Your task to perform on an android device: Open Amazon Image 0: 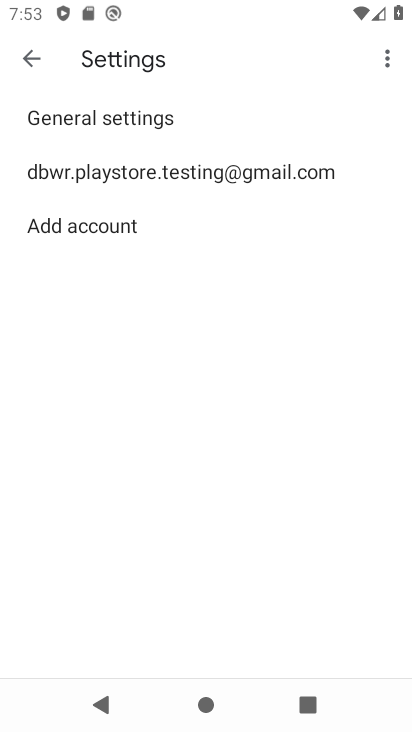
Step 0: click (30, 55)
Your task to perform on an android device: Open Amazon Image 1: 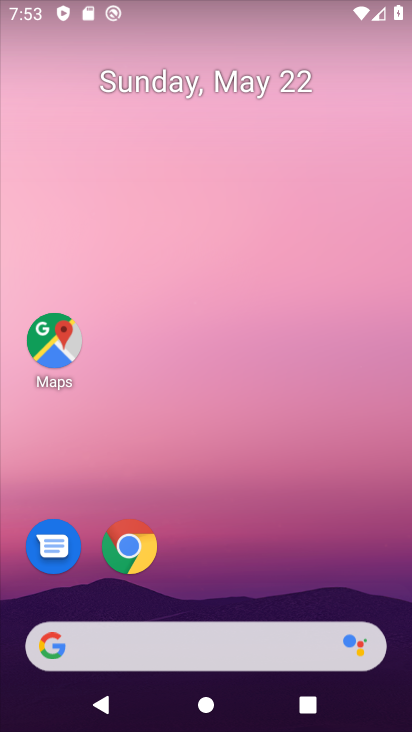
Step 1: click (161, 44)
Your task to perform on an android device: Open Amazon Image 2: 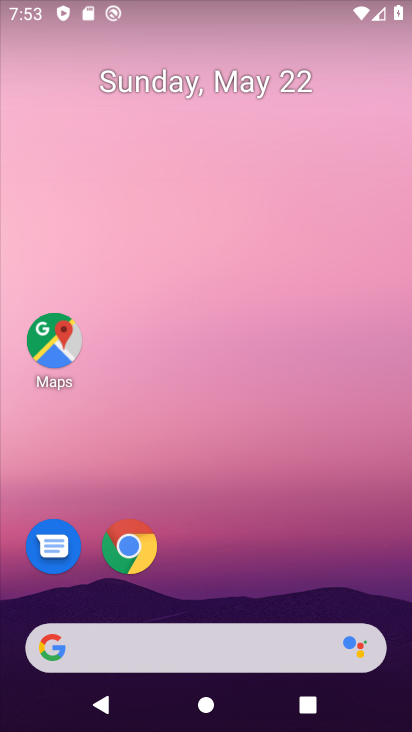
Step 2: drag from (230, 520) to (200, 45)
Your task to perform on an android device: Open Amazon Image 3: 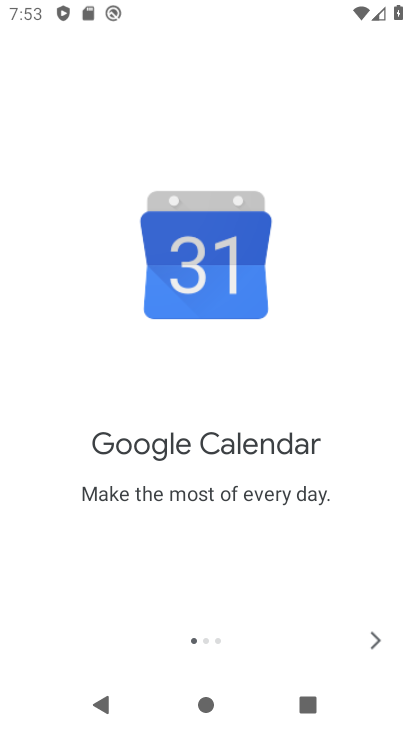
Step 3: drag from (258, 458) to (201, 33)
Your task to perform on an android device: Open Amazon Image 4: 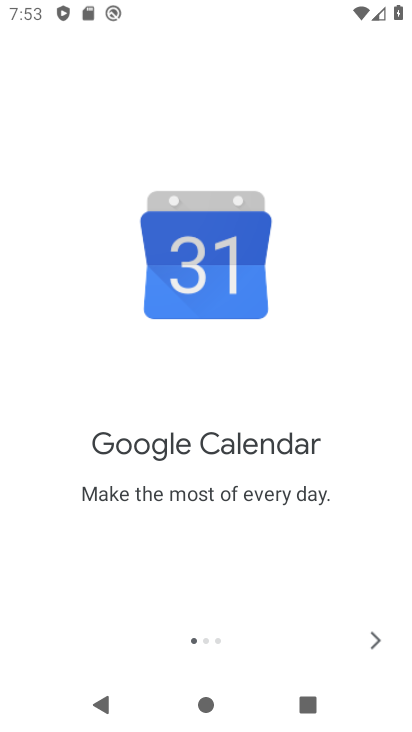
Step 4: click (375, 642)
Your task to perform on an android device: Open Amazon Image 5: 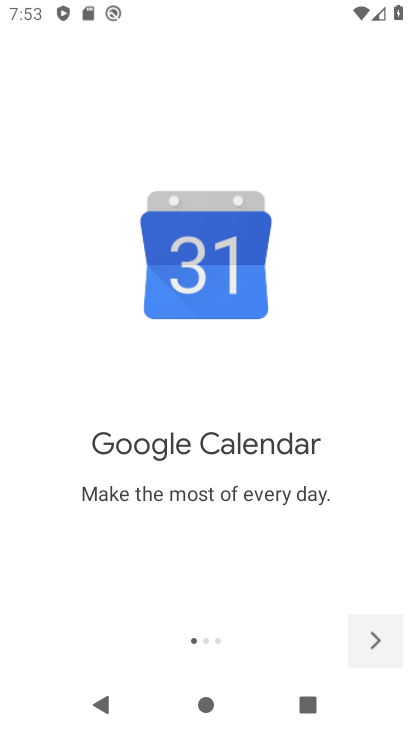
Step 5: click (376, 617)
Your task to perform on an android device: Open Amazon Image 6: 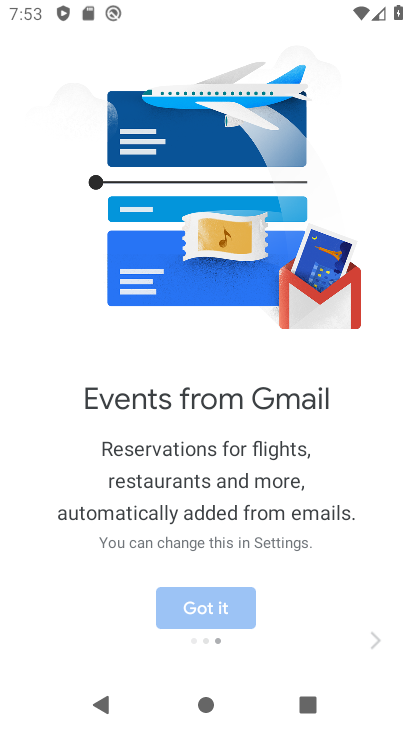
Step 6: press back button
Your task to perform on an android device: Open Amazon Image 7: 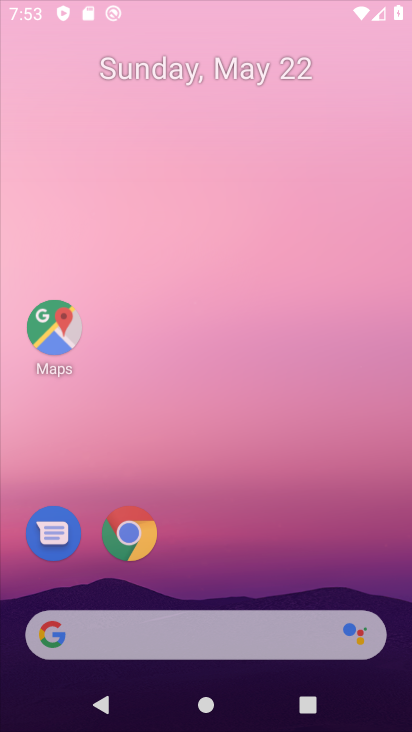
Step 7: click (199, 599)
Your task to perform on an android device: Open Amazon Image 8: 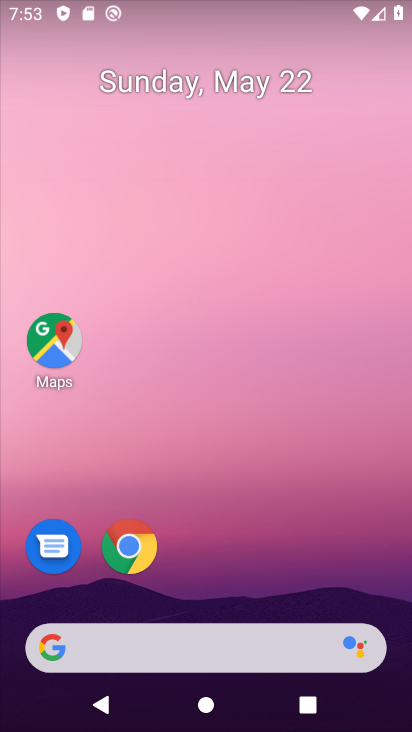
Step 8: drag from (304, 656) to (250, 14)
Your task to perform on an android device: Open Amazon Image 9: 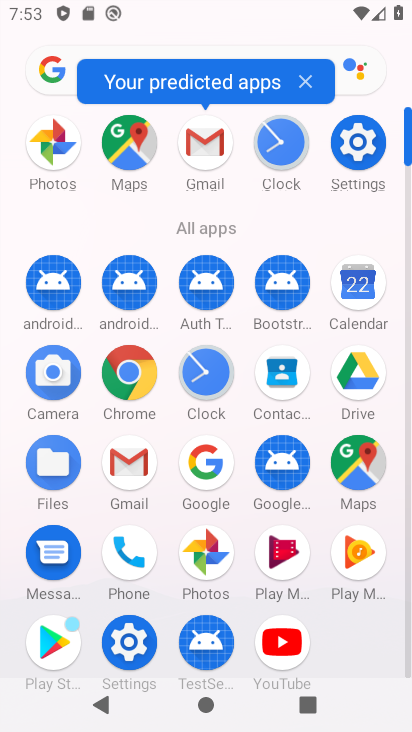
Step 9: click (120, 378)
Your task to perform on an android device: Open Amazon Image 10: 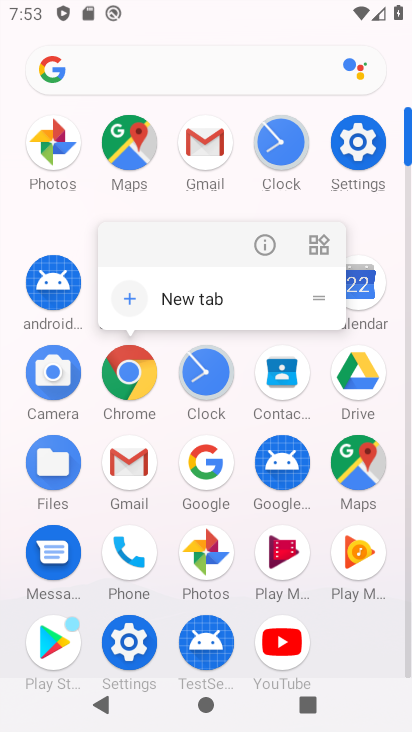
Step 10: click (121, 376)
Your task to perform on an android device: Open Amazon Image 11: 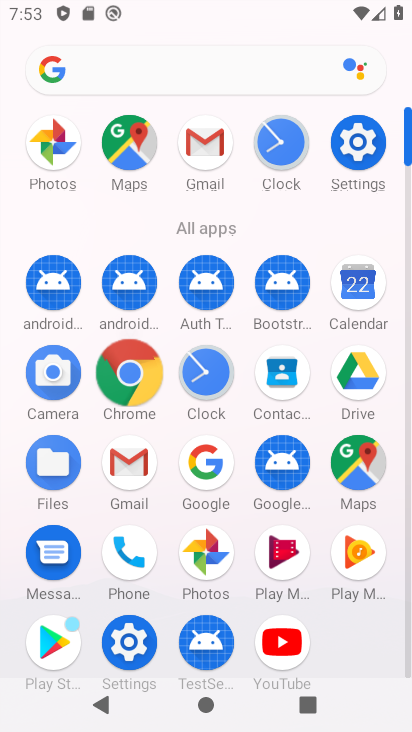
Step 11: click (127, 374)
Your task to perform on an android device: Open Amazon Image 12: 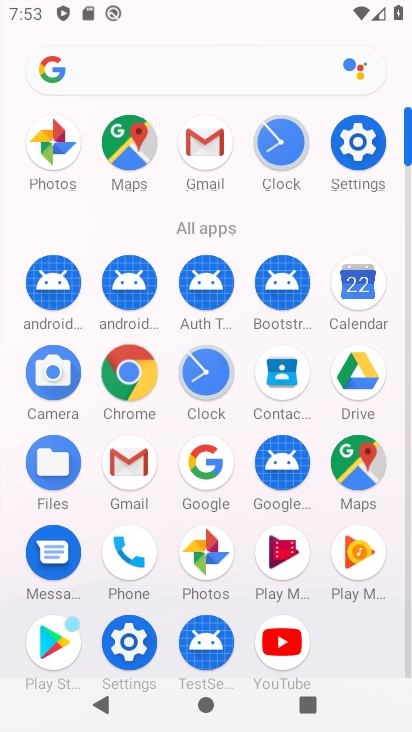
Step 12: click (127, 374)
Your task to perform on an android device: Open Amazon Image 13: 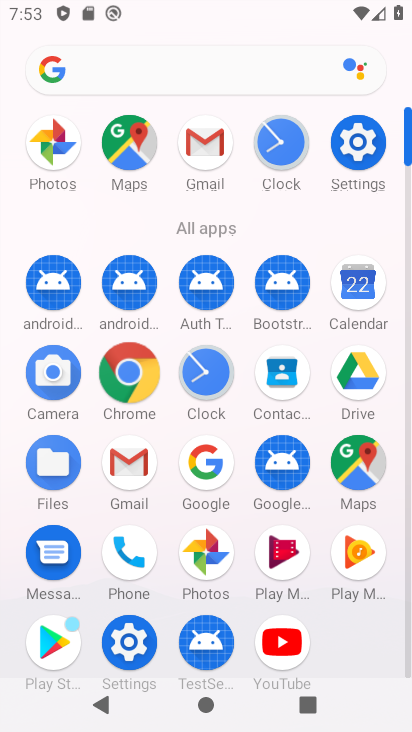
Step 13: click (133, 372)
Your task to perform on an android device: Open Amazon Image 14: 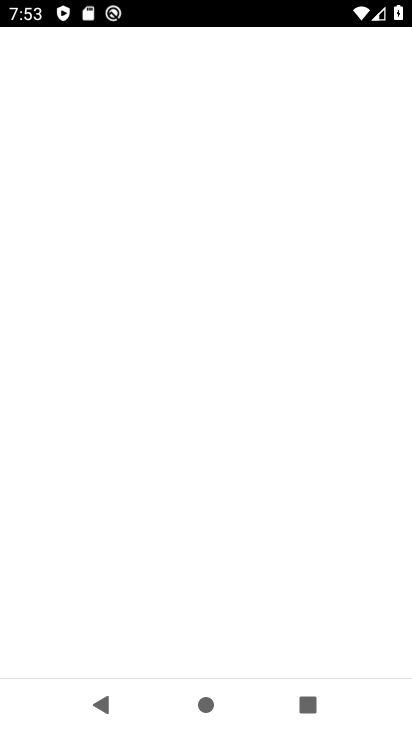
Step 14: click (125, 350)
Your task to perform on an android device: Open Amazon Image 15: 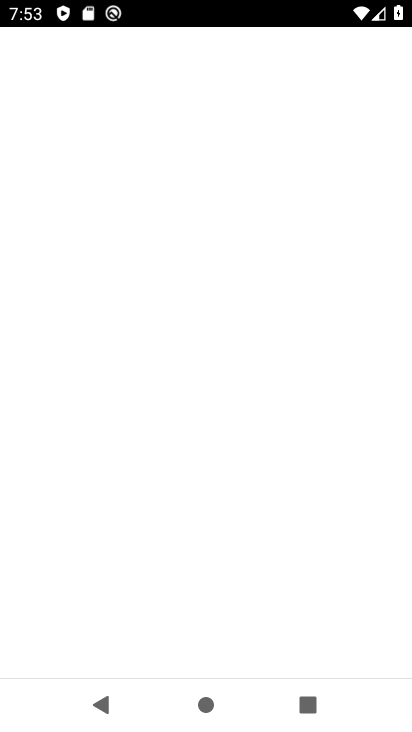
Step 15: click (127, 357)
Your task to perform on an android device: Open Amazon Image 16: 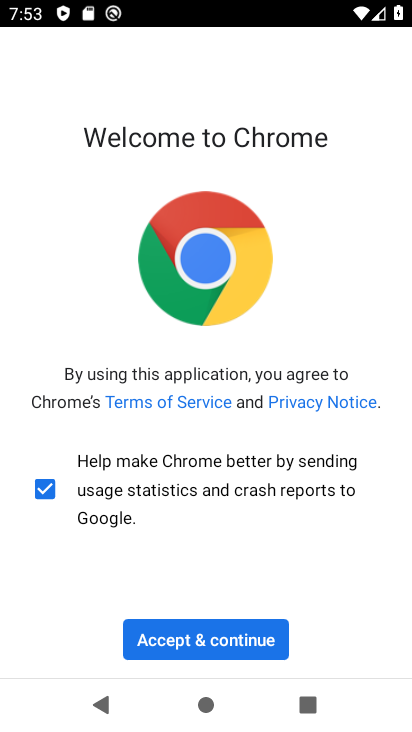
Step 16: click (207, 639)
Your task to perform on an android device: Open Amazon Image 17: 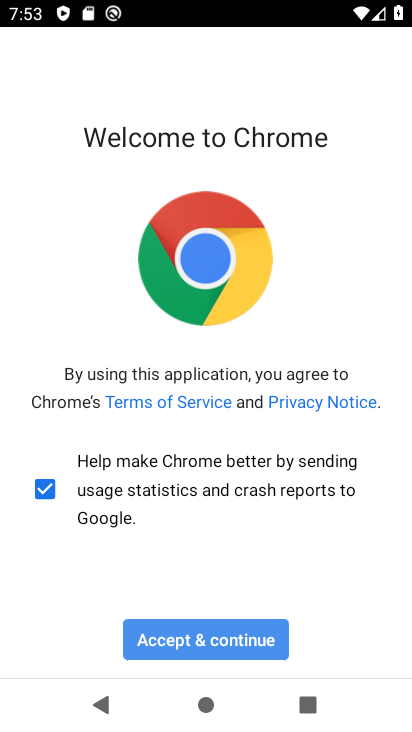
Step 17: click (207, 638)
Your task to perform on an android device: Open Amazon Image 18: 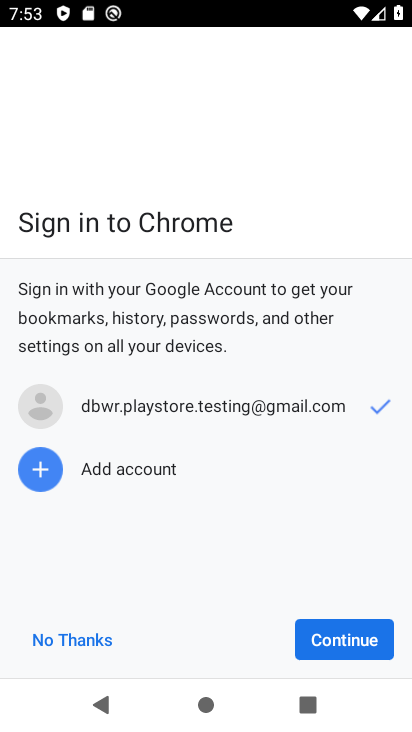
Step 18: click (212, 635)
Your task to perform on an android device: Open Amazon Image 19: 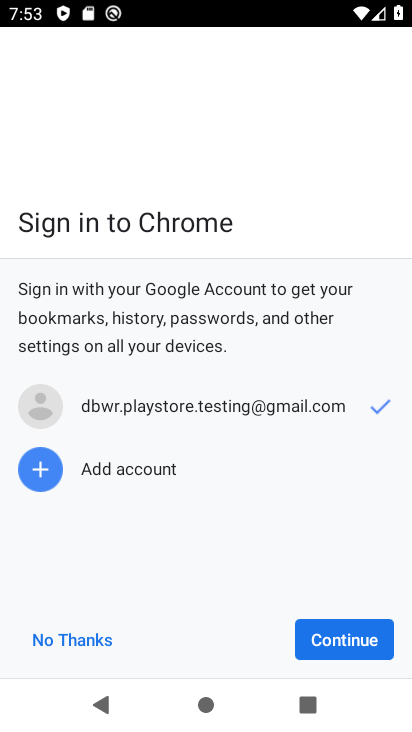
Step 19: click (213, 635)
Your task to perform on an android device: Open Amazon Image 20: 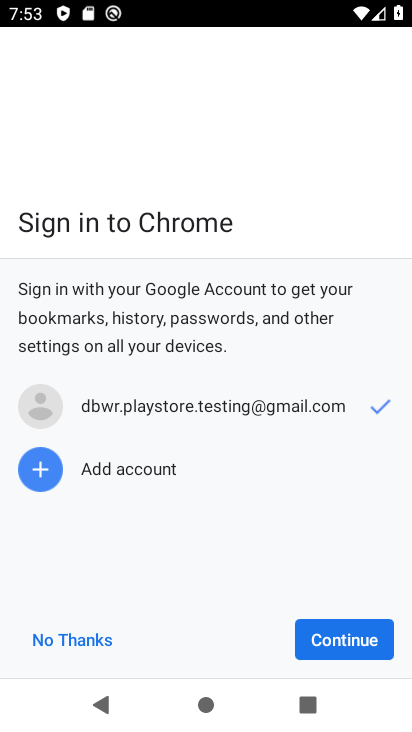
Step 20: click (327, 638)
Your task to perform on an android device: Open Amazon Image 21: 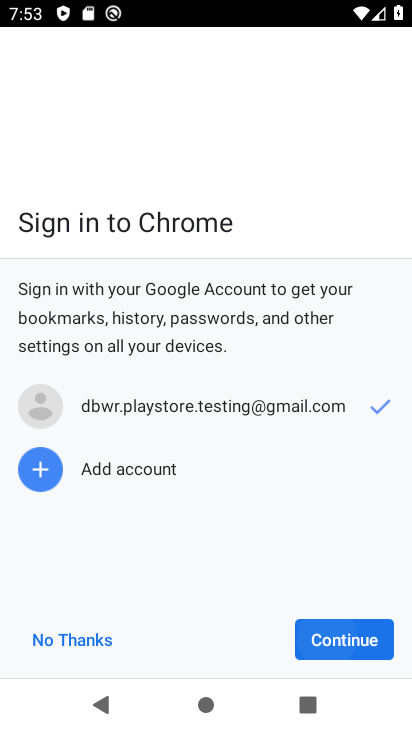
Step 21: click (330, 640)
Your task to perform on an android device: Open Amazon Image 22: 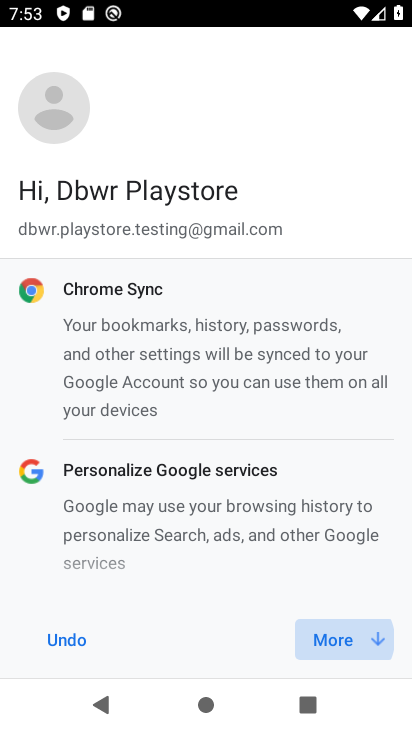
Step 22: click (312, 597)
Your task to perform on an android device: Open Amazon Image 23: 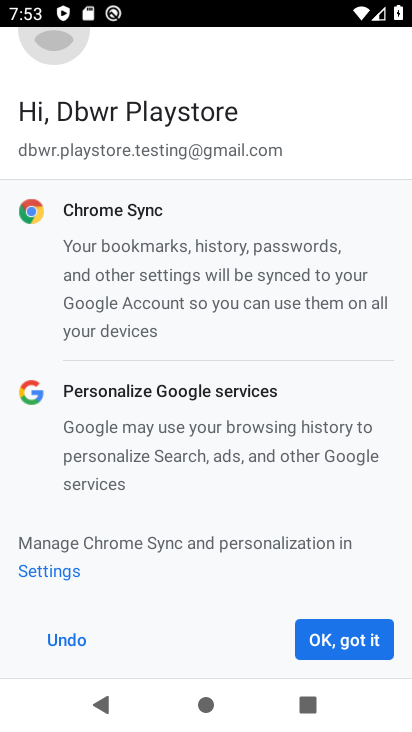
Step 23: click (347, 642)
Your task to perform on an android device: Open Amazon Image 24: 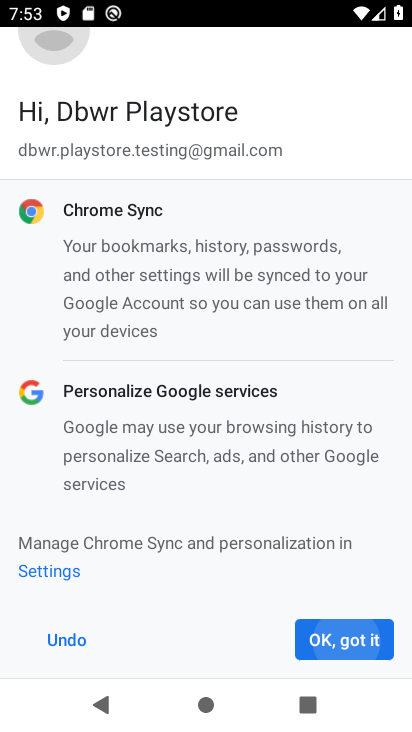
Step 24: click (344, 647)
Your task to perform on an android device: Open Amazon Image 25: 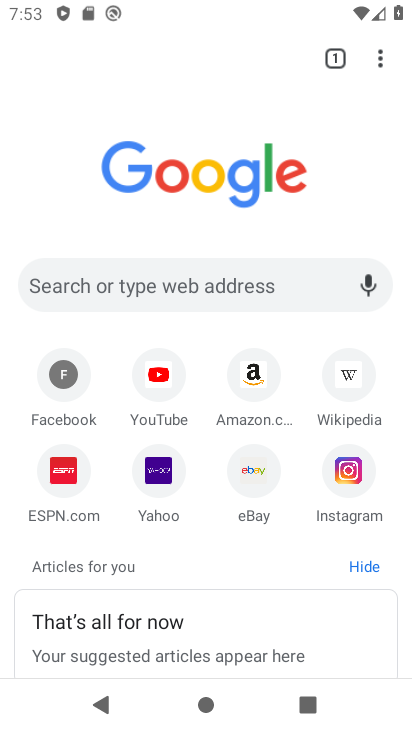
Step 25: click (256, 381)
Your task to perform on an android device: Open Amazon Image 26: 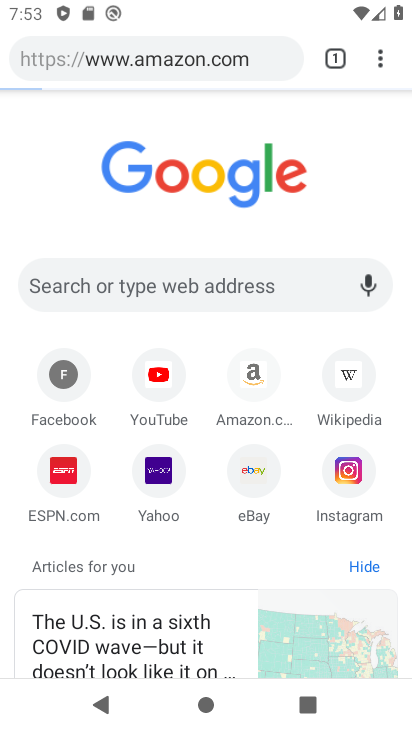
Step 26: click (254, 382)
Your task to perform on an android device: Open Amazon Image 27: 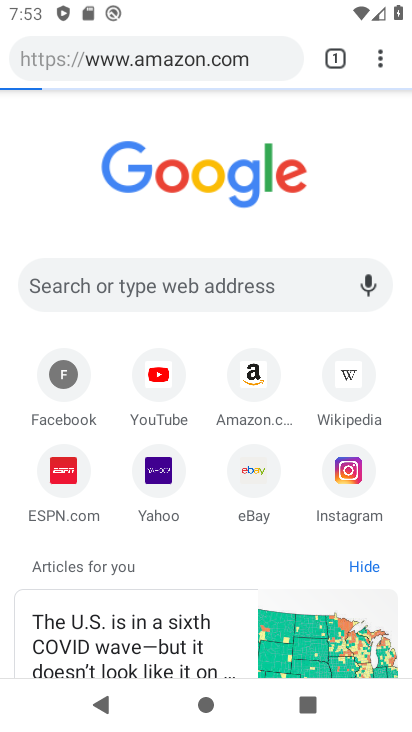
Step 27: click (254, 382)
Your task to perform on an android device: Open Amazon Image 28: 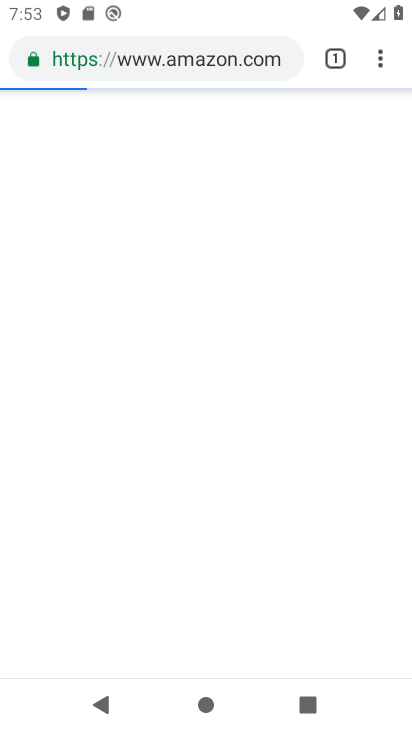
Step 28: click (254, 385)
Your task to perform on an android device: Open Amazon Image 29: 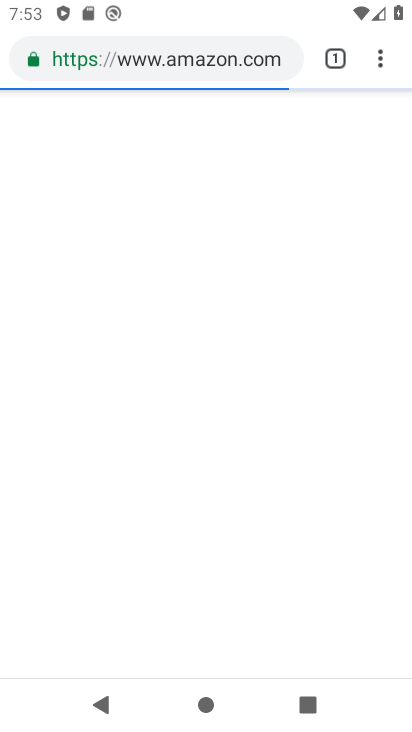
Step 29: click (254, 385)
Your task to perform on an android device: Open Amazon Image 30: 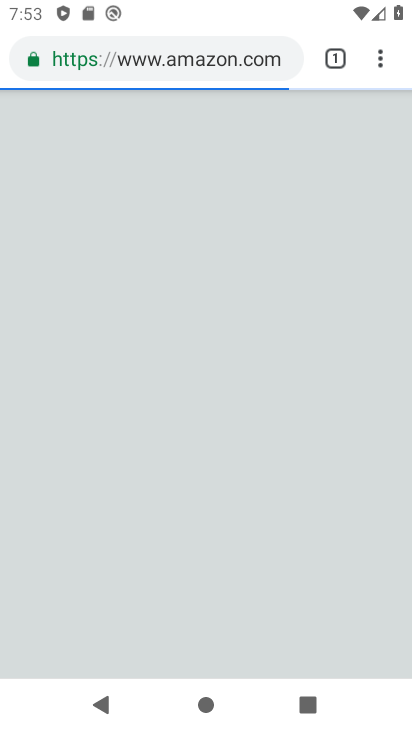
Step 30: click (254, 385)
Your task to perform on an android device: Open Amazon Image 31: 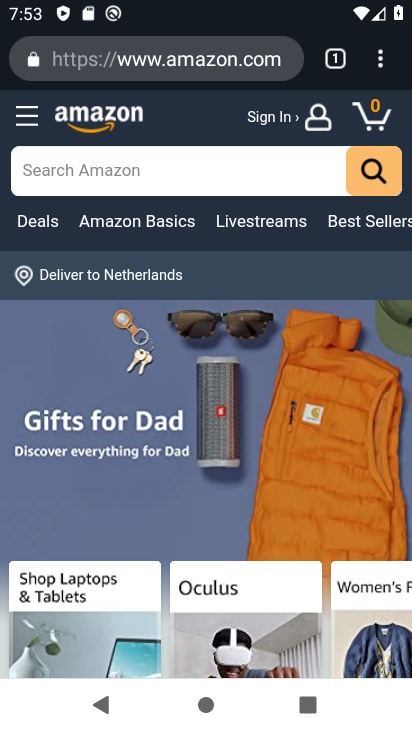
Step 31: task complete